Your task to perform on an android device: remove spam from my inbox in the gmail app Image 0: 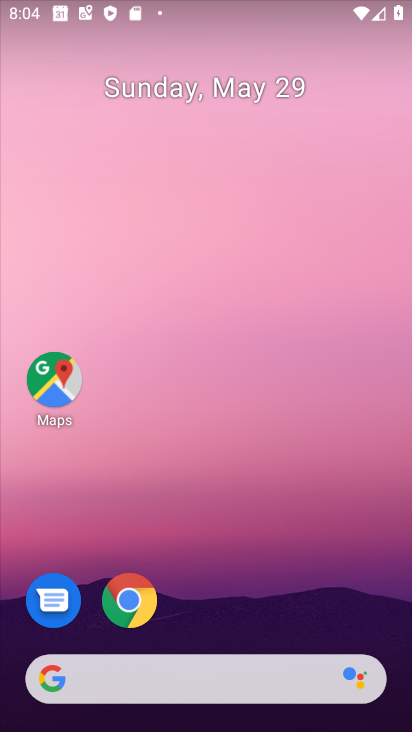
Step 0: drag from (321, 549) to (314, 186)
Your task to perform on an android device: remove spam from my inbox in the gmail app Image 1: 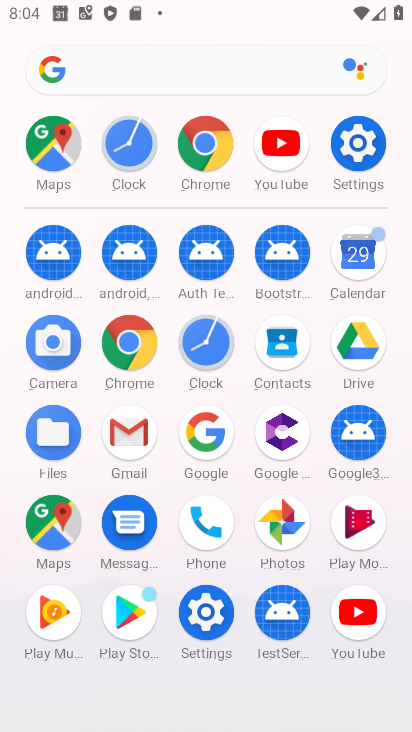
Step 1: click (142, 448)
Your task to perform on an android device: remove spam from my inbox in the gmail app Image 2: 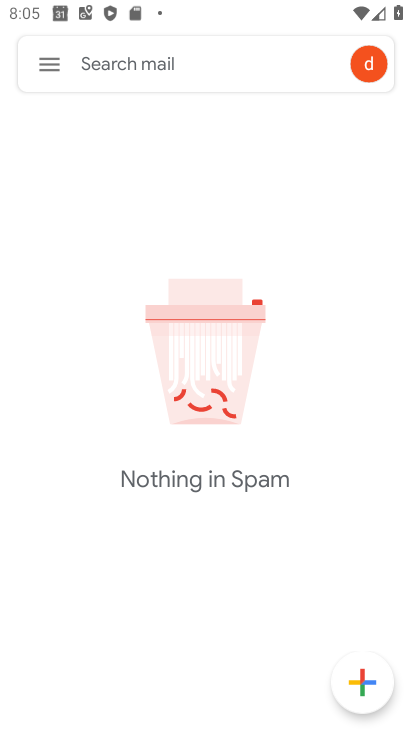
Step 2: task complete